Your task to perform on an android device: add a contact in the contacts app Image 0: 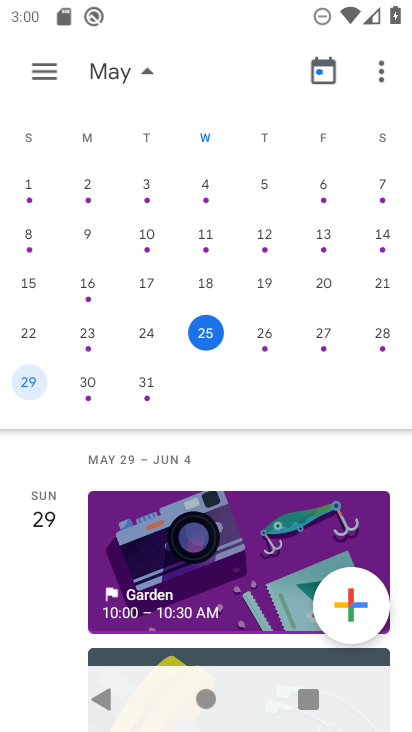
Step 0: press home button
Your task to perform on an android device: add a contact in the contacts app Image 1: 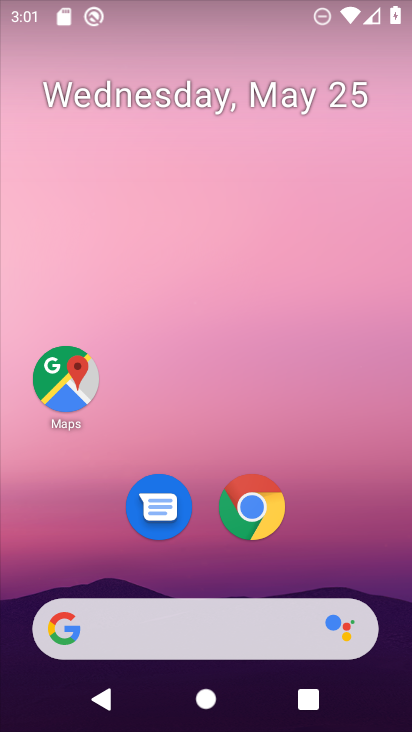
Step 1: drag from (201, 679) to (264, 147)
Your task to perform on an android device: add a contact in the contacts app Image 2: 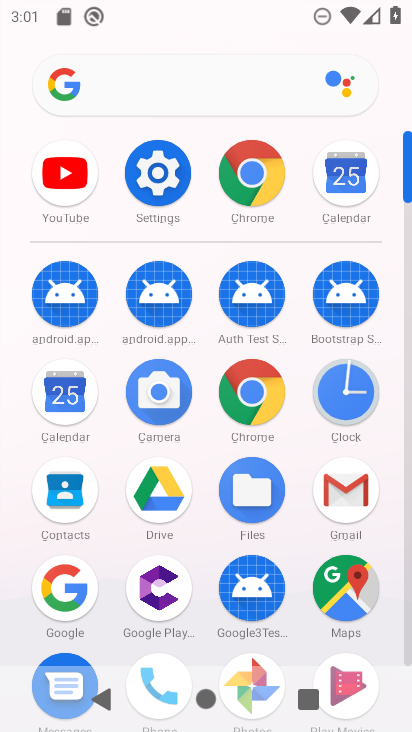
Step 2: click (69, 497)
Your task to perform on an android device: add a contact in the contacts app Image 3: 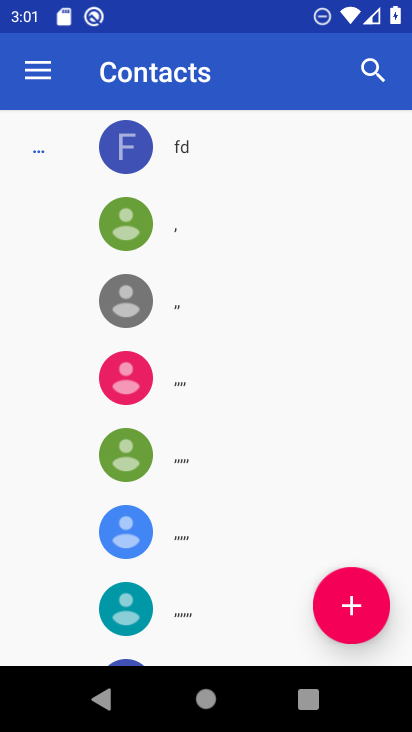
Step 3: click (354, 624)
Your task to perform on an android device: add a contact in the contacts app Image 4: 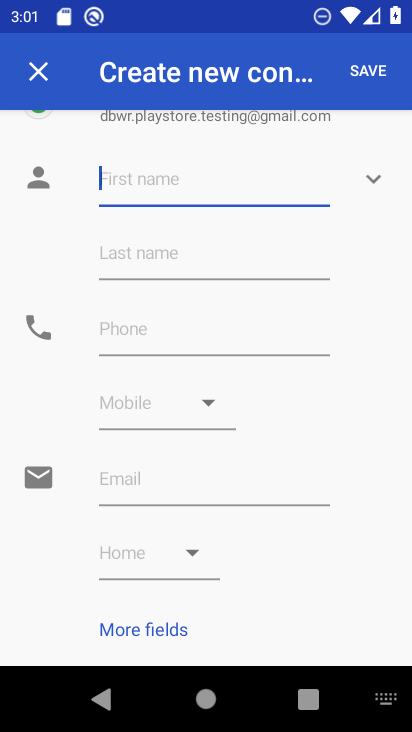
Step 4: type "bhbbjbb"
Your task to perform on an android device: add a contact in the contacts app Image 5: 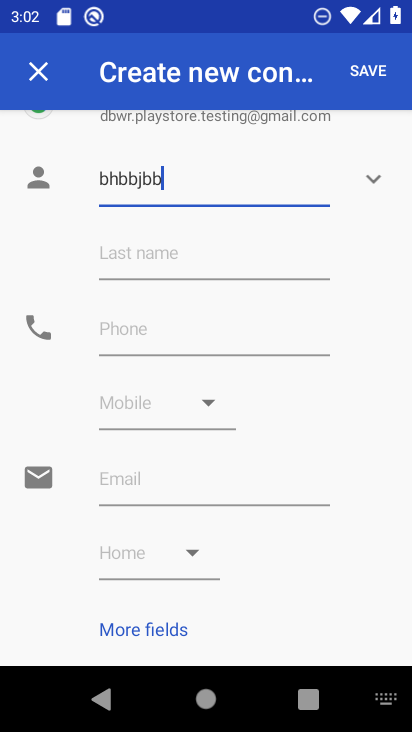
Step 5: click (210, 336)
Your task to perform on an android device: add a contact in the contacts app Image 6: 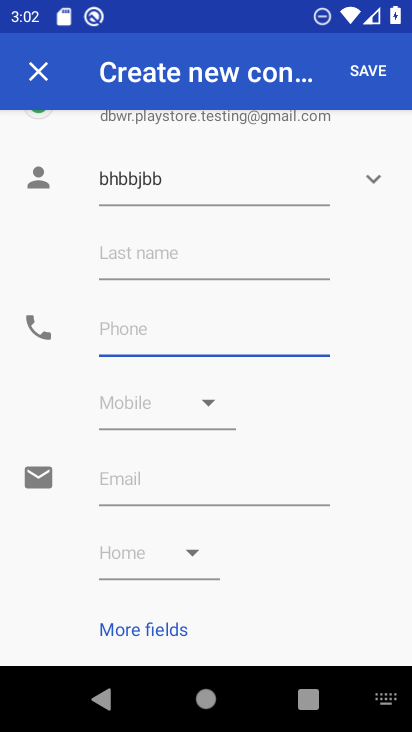
Step 6: type "8787879889"
Your task to perform on an android device: add a contact in the contacts app Image 7: 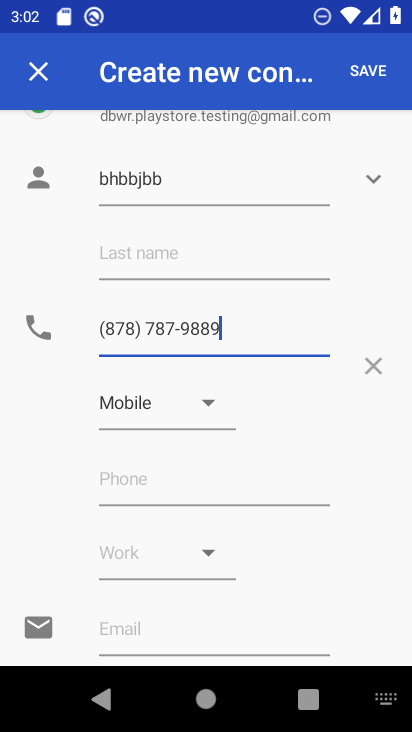
Step 7: click (377, 68)
Your task to perform on an android device: add a contact in the contacts app Image 8: 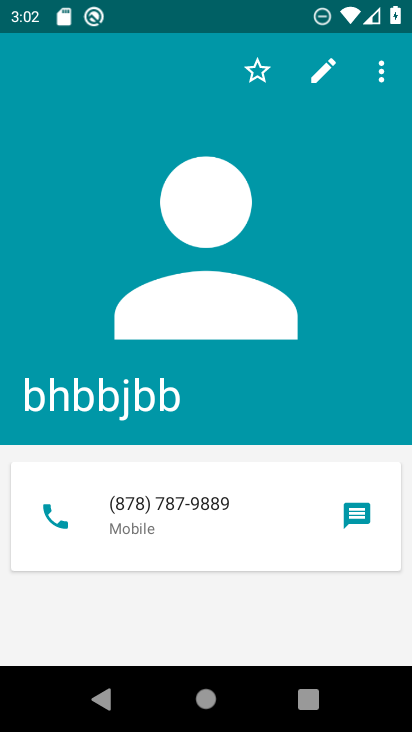
Step 8: task complete